Your task to perform on an android device: What's on my calendar tomorrow? Image 0: 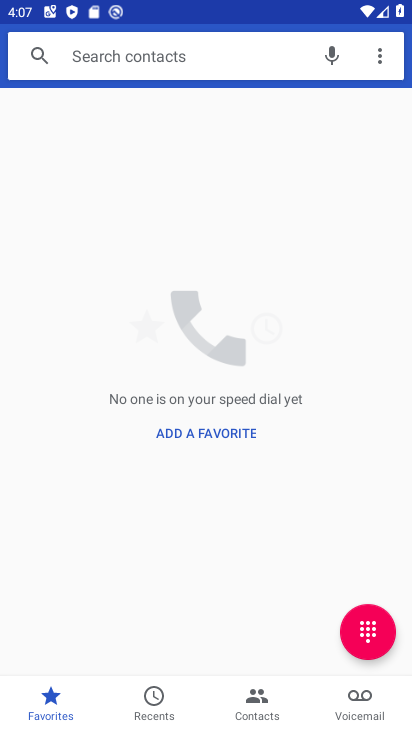
Step 0: press home button
Your task to perform on an android device: What's on my calendar tomorrow? Image 1: 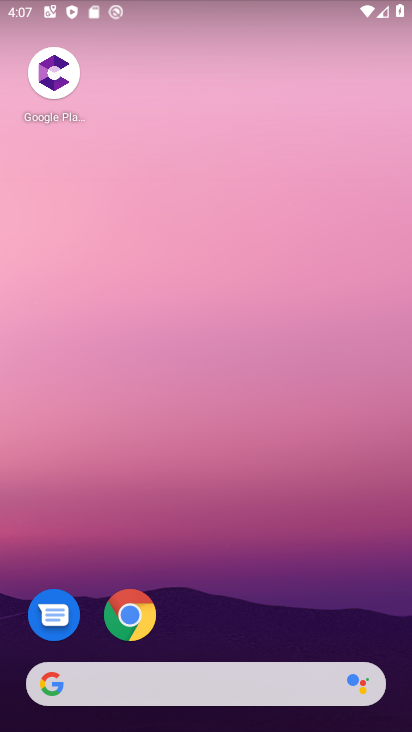
Step 1: drag from (212, 711) to (212, 148)
Your task to perform on an android device: What's on my calendar tomorrow? Image 2: 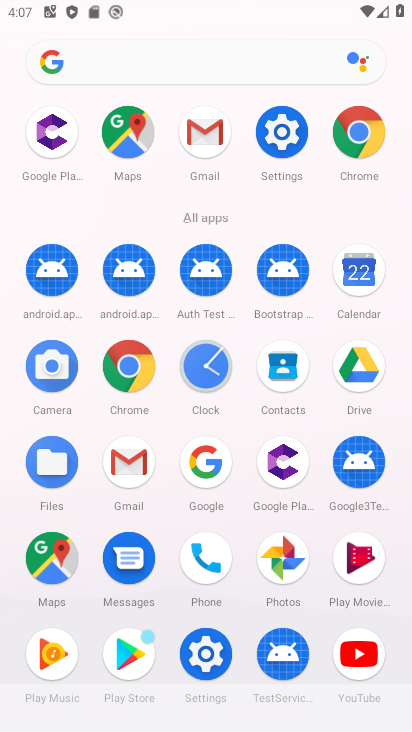
Step 2: click (362, 282)
Your task to perform on an android device: What's on my calendar tomorrow? Image 3: 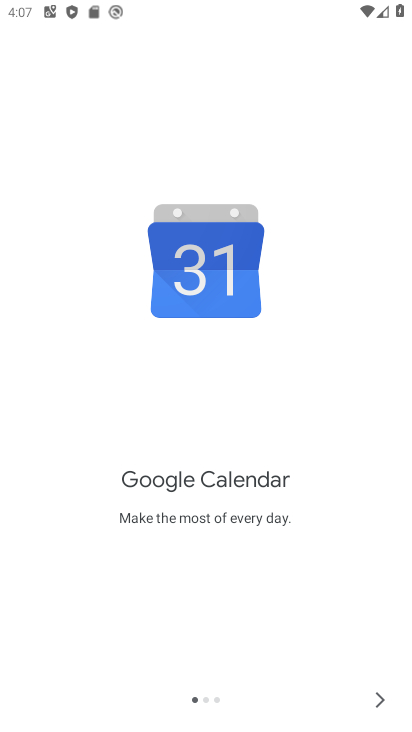
Step 3: click (378, 704)
Your task to perform on an android device: What's on my calendar tomorrow? Image 4: 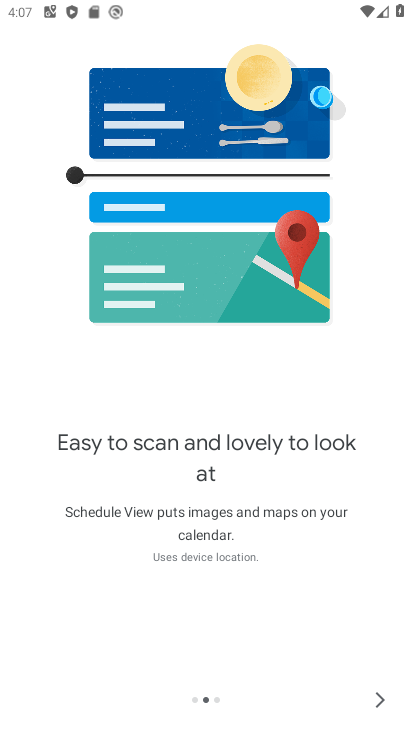
Step 4: click (378, 704)
Your task to perform on an android device: What's on my calendar tomorrow? Image 5: 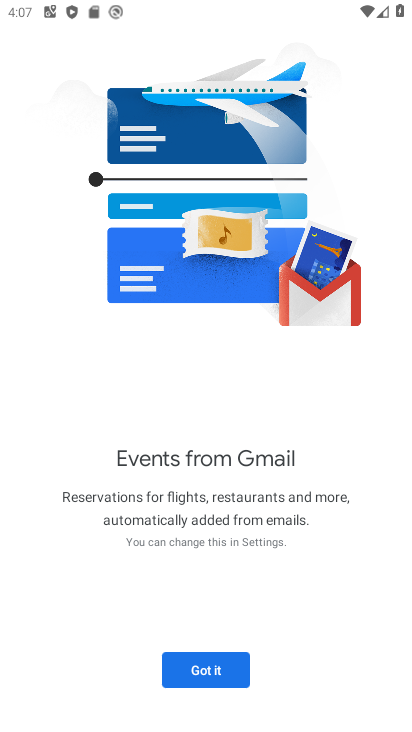
Step 5: click (193, 670)
Your task to perform on an android device: What's on my calendar tomorrow? Image 6: 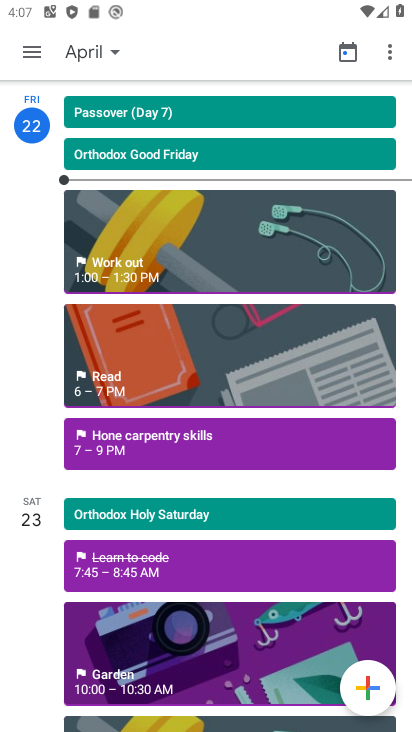
Step 6: click (82, 41)
Your task to perform on an android device: What's on my calendar tomorrow? Image 7: 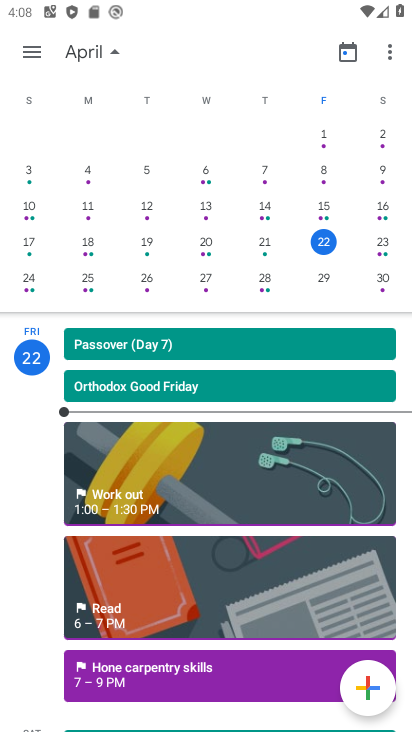
Step 7: click (381, 242)
Your task to perform on an android device: What's on my calendar tomorrow? Image 8: 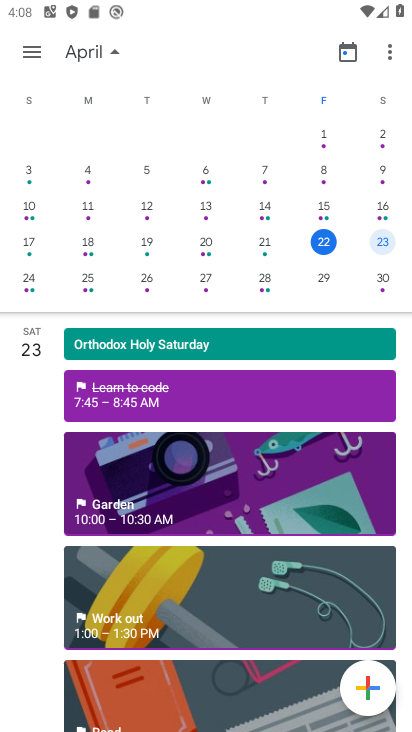
Step 8: task complete